Your task to perform on an android device: Do I have any events tomorrow? Image 0: 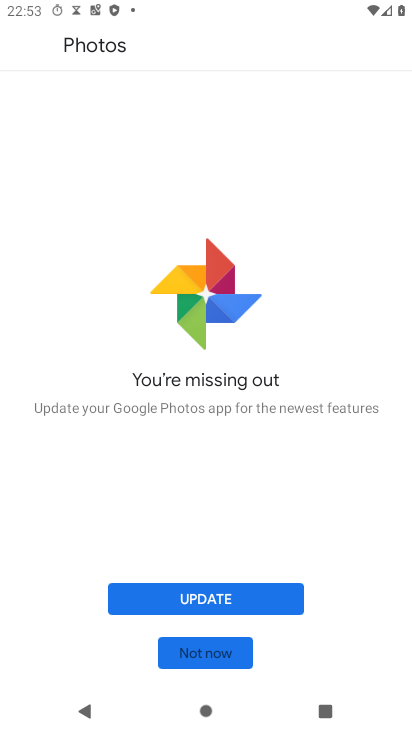
Step 0: press home button
Your task to perform on an android device: Do I have any events tomorrow? Image 1: 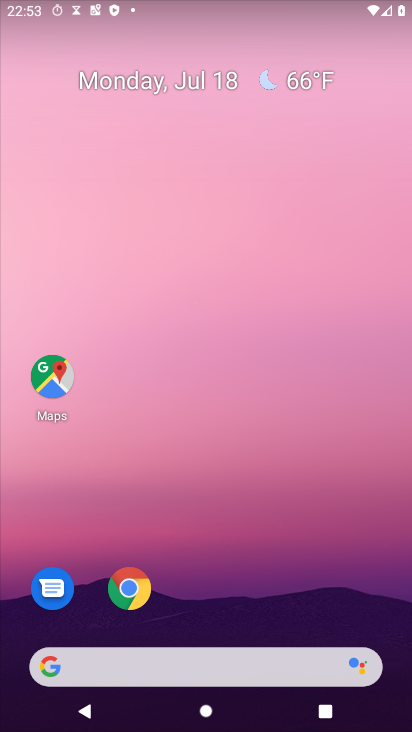
Step 1: drag from (201, 667) to (225, 134)
Your task to perform on an android device: Do I have any events tomorrow? Image 2: 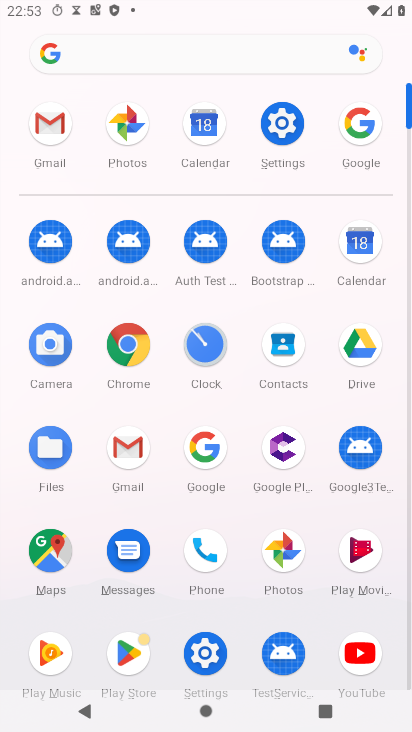
Step 2: click (208, 120)
Your task to perform on an android device: Do I have any events tomorrow? Image 3: 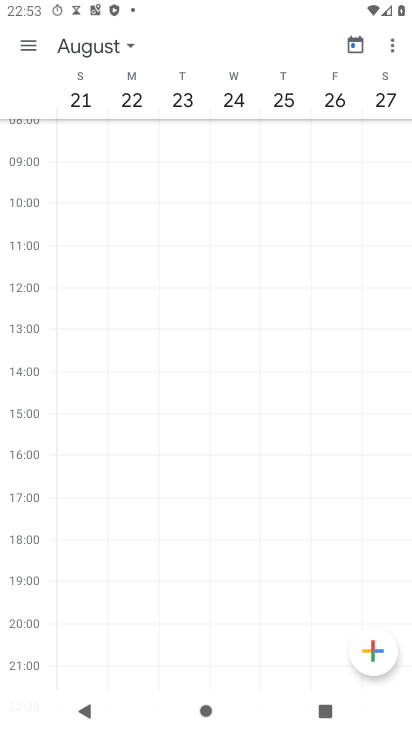
Step 3: click (91, 44)
Your task to perform on an android device: Do I have any events tomorrow? Image 4: 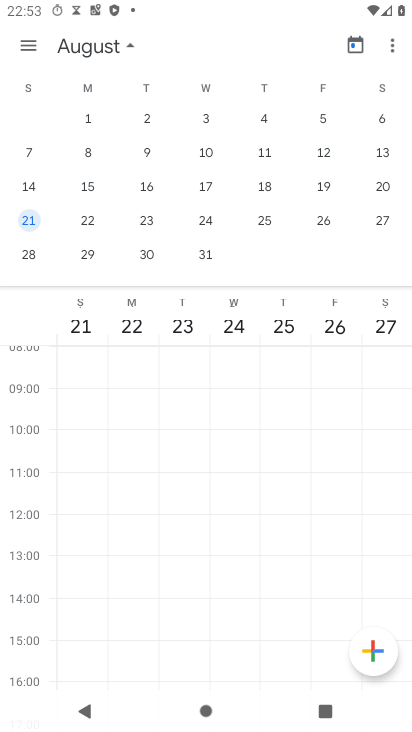
Step 4: drag from (89, 181) to (409, 208)
Your task to perform on an android device: Do I have any events tomorrow? Image 5: 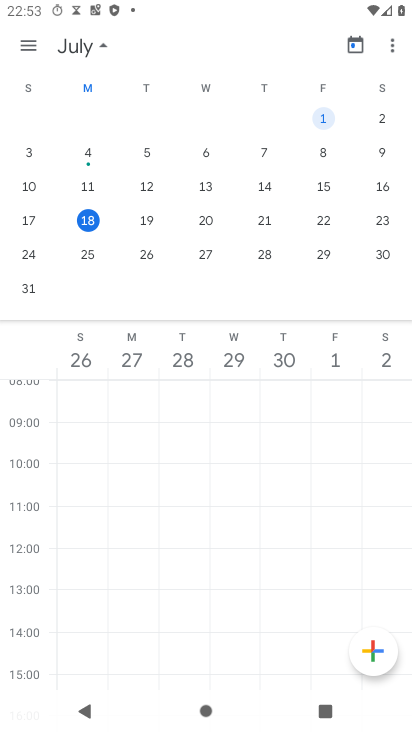
Step 5: click (145, 220)
Your task to perform on an android device: Do I have any events tomorrow? Image 6: 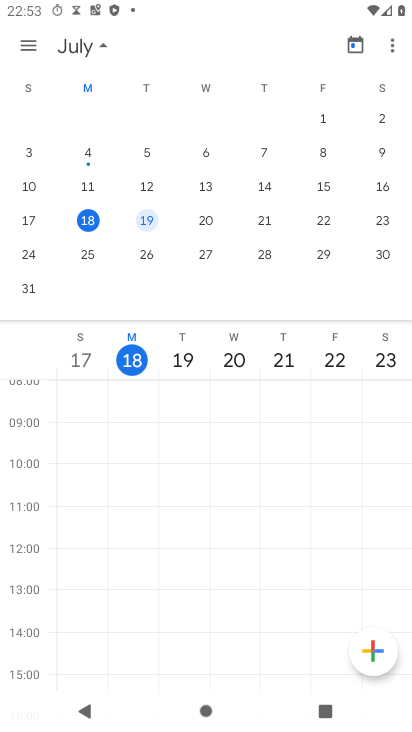
Step 6: click (33, 37)
Your task to perform on an android device: Do I have any events tomorrow? Image 7: 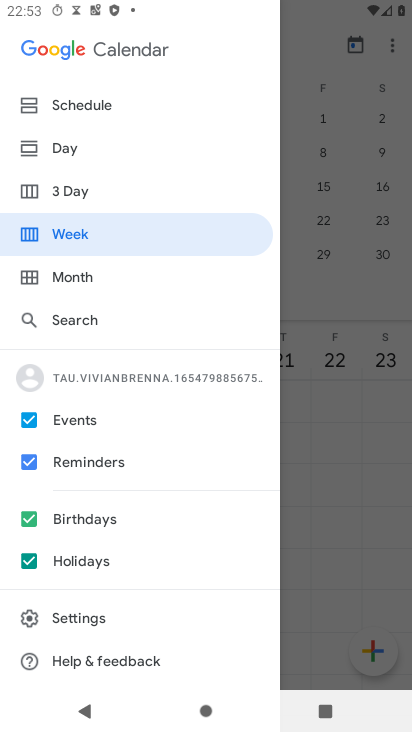
Step 7: click (69, 146)
Your task to perform on an android device: Do I have any events tomorrow? Image 8: 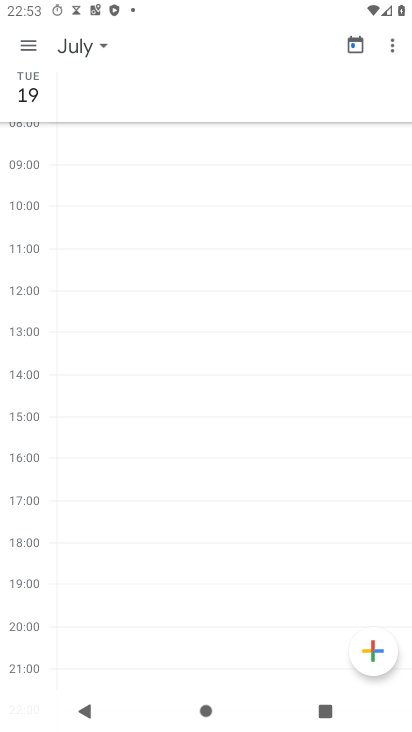
Step 8: click (29, 44)
Your task to perform on an android device: Do I have any events tomorrow? Image 9: 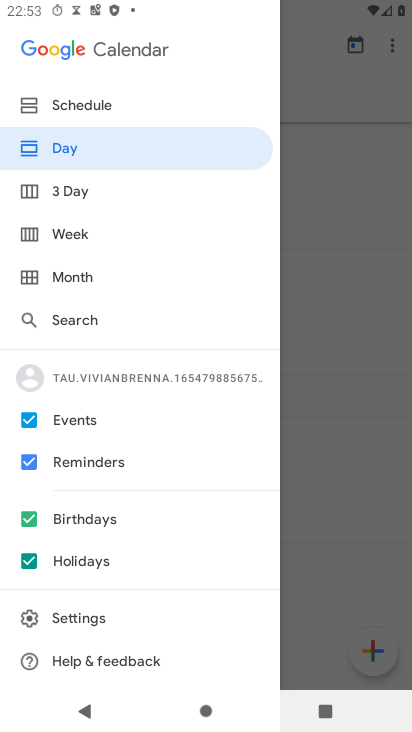
Step 9: click (115, 107)
Your task to perform on an android device: Do I have any events tomorrow? Image 10: 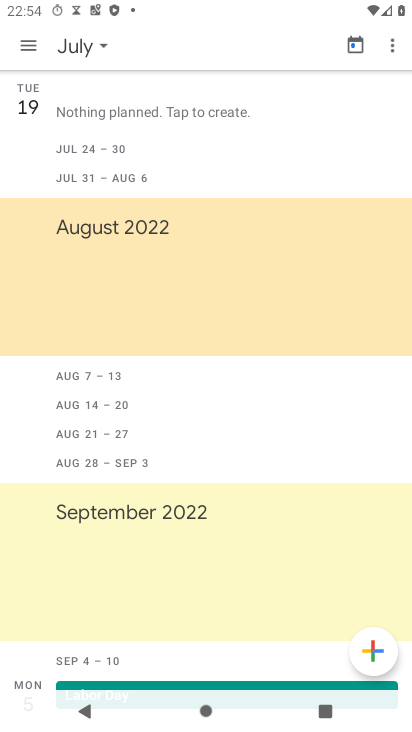
Step 10: task complete